Your task to perform on an android device: open app "Clock" Image 0: 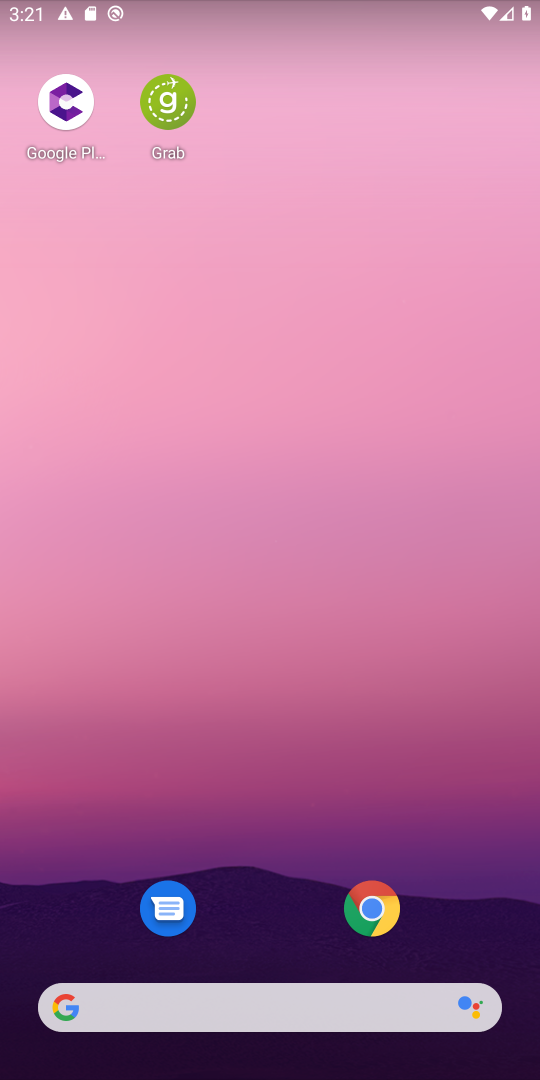
Step 0: press back button
Your task to perform on an android device: open app "Clock" Image 1: 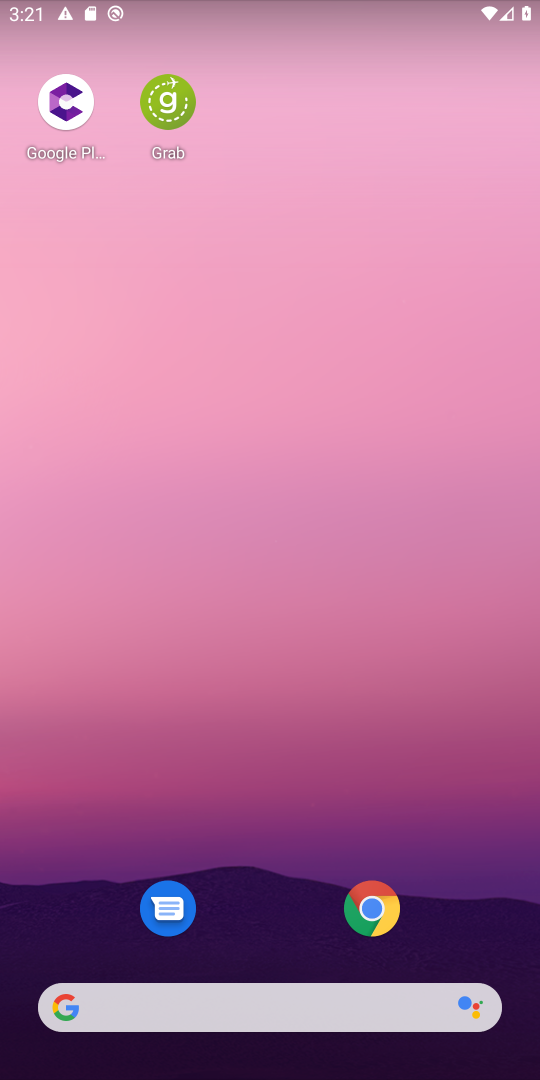
Step 1: drag from (292, 1006) to (202, 162)
Your task to perform on an android device: open app "Clock" Image 2: 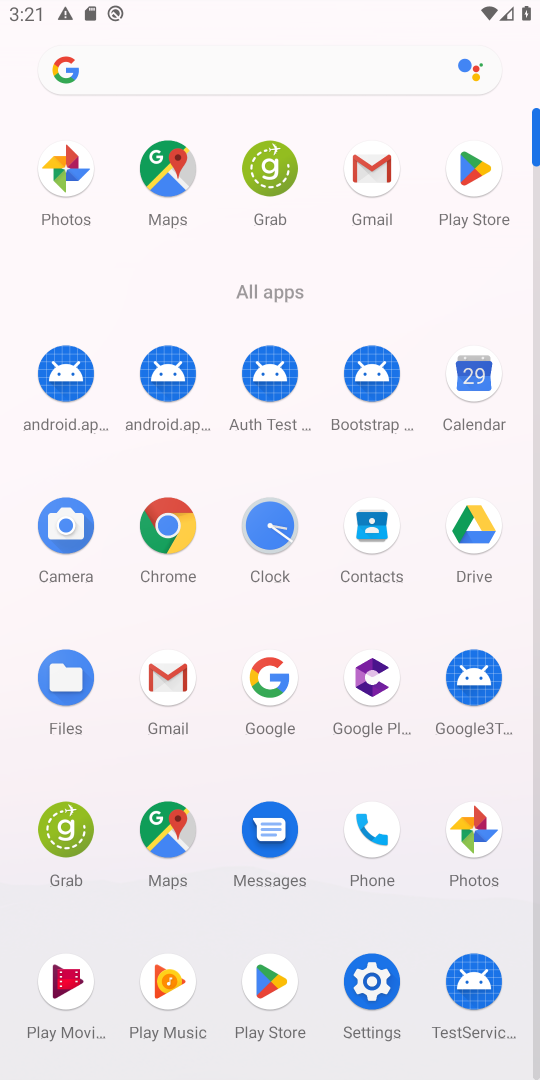
Step 2: click (273, 514)
Your task to perform on an android device: open app "Clock" Image 3: 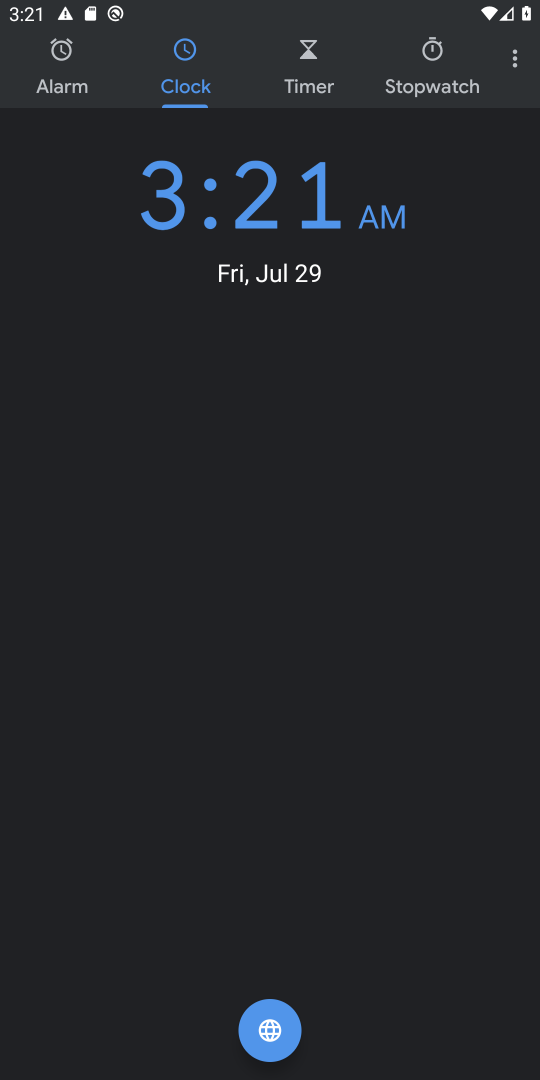
Step 3: task complete